Your task to perform on an android device: check battery use Image 0: 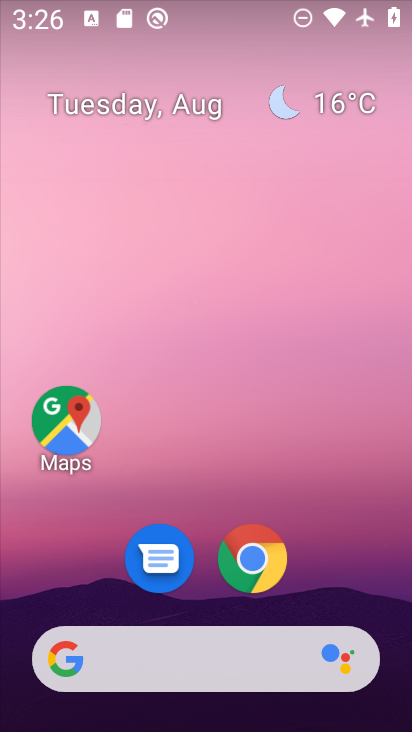
Step 0: drag from (197, 453) to (153, 147)
Your task to perform on an android device: check battery use Image 1: 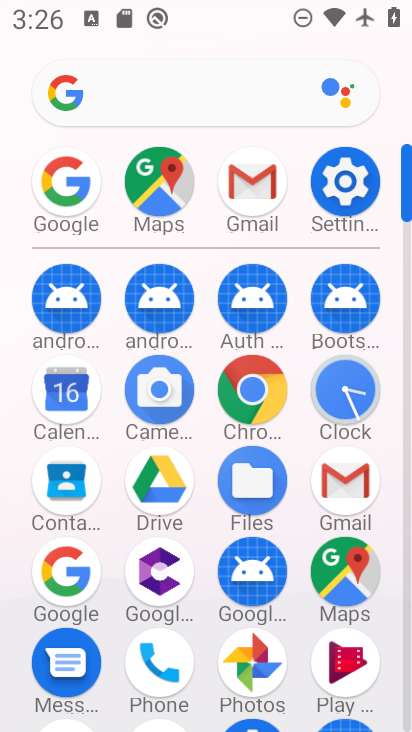
Step 1: click (374, 185)
Your task to perform on an android device: check battery use Image 2: 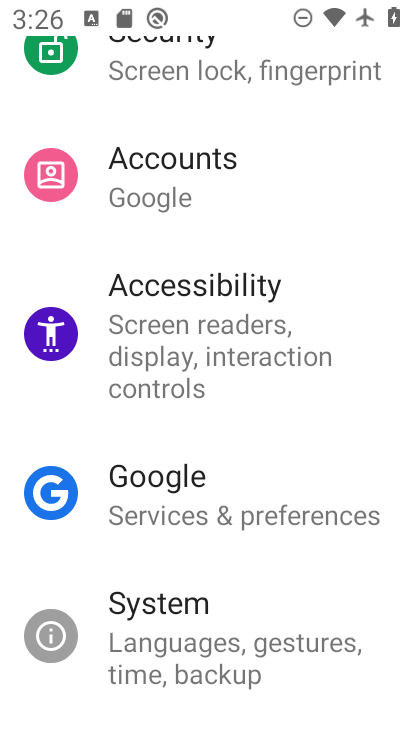
Step 2: drag from (239, 224) to (270, 554)
Your task to perform on an android device: check battery use Image 3: 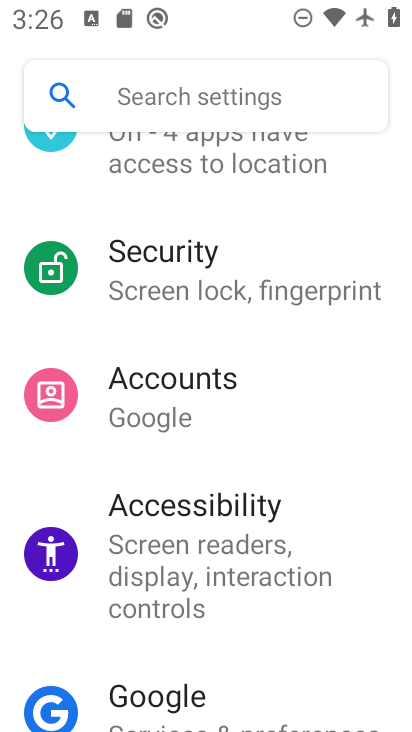
Step 3: drag from (228, 249) to (263, 553)
Your task to perform on an android device: check battery use Image 4: 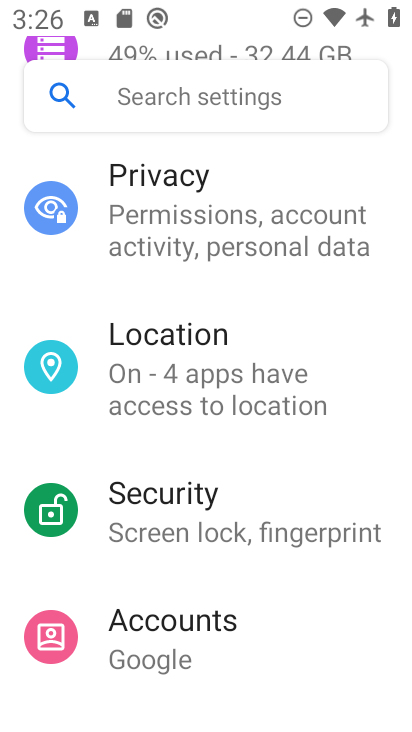
Step 4: drag from (205, 265) to (254, 559)
Your task to perform on an android device: check battery use Image 5: 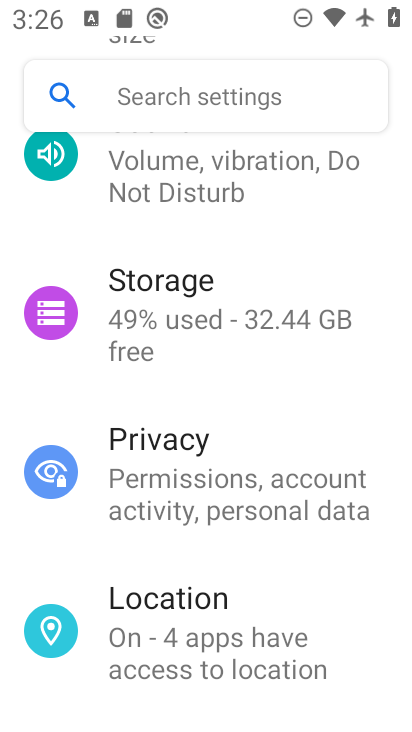
Step 5: drag from (256, 299) to (295, 566)
Your task to perform on an android device: check battery use Image 6: 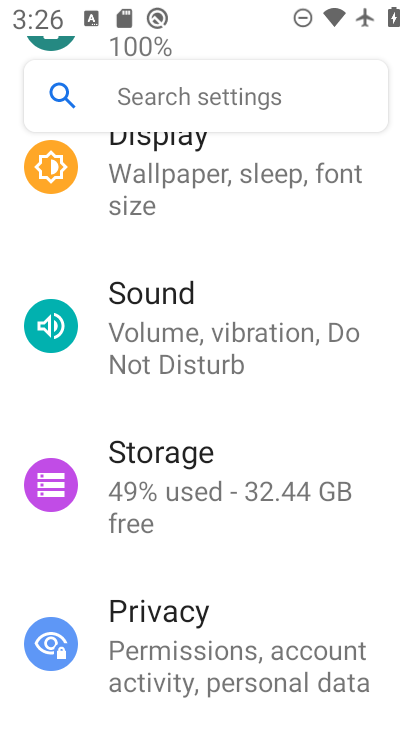
Step 6: drag from (211, 237) to (246, 563)
Your task to perform on an android device: check battery use Image 7: 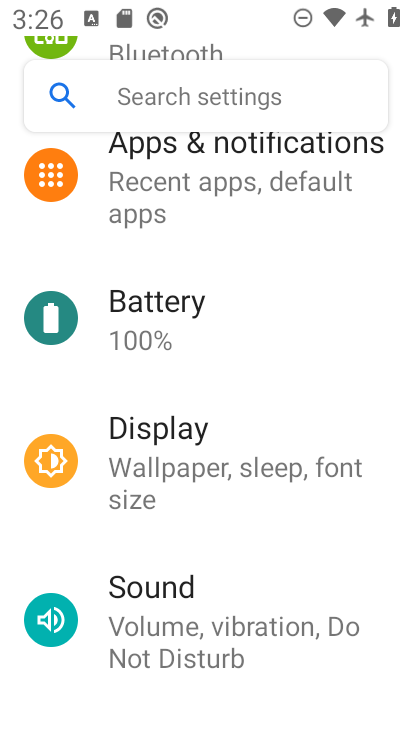
Step 7: click (229, 332)
Your task to perform on an android device: check battery use Image 8: 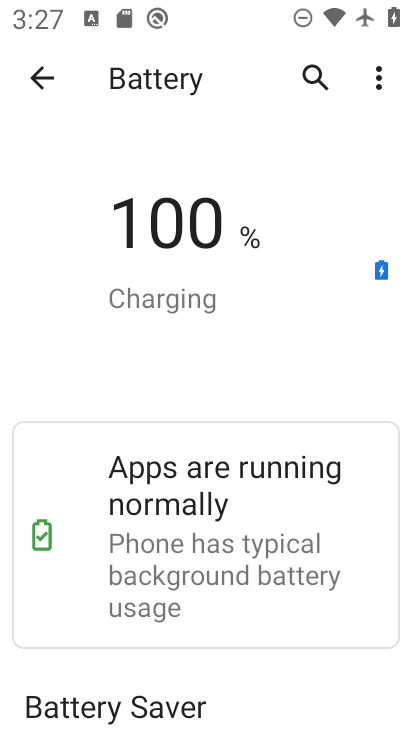
Step 8: task complete